Your task to perform on an android device: check android version Image 0: 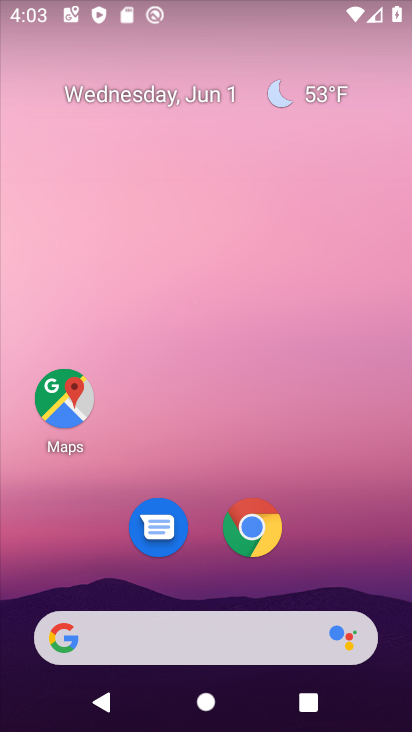
Step 0: drag from (289, 563) to (313, 115)
Your task to perform on an android device: check android version Image 1: 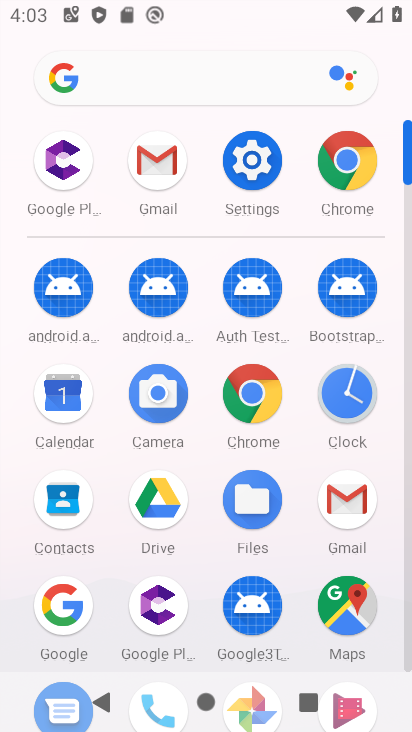
Step 1: click (253, 150)
Your task to perform on an android device: check android version Image 2: 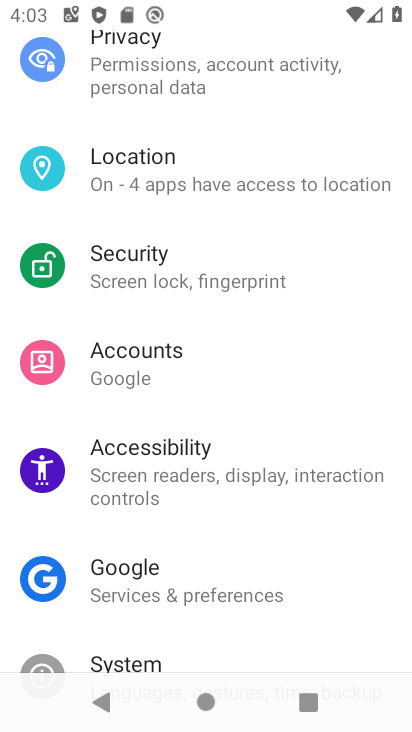
Step 2: drag from (192, 610) to (249, 124)
Your task to perform on an android device: check android version Image 3: 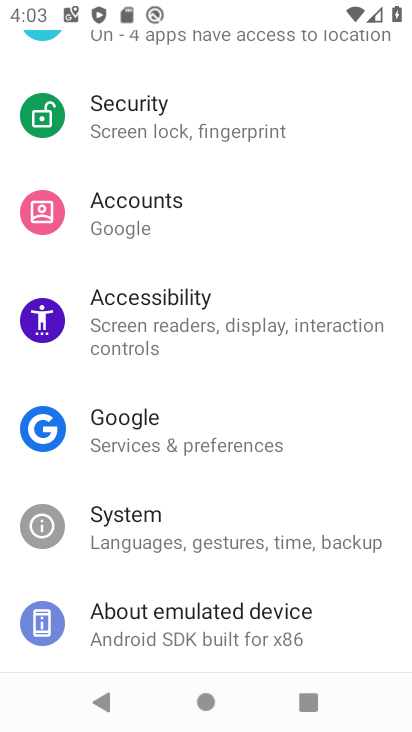
Step 3: click (133, 624)
Your task to perform on an android device: check android version Image 4: 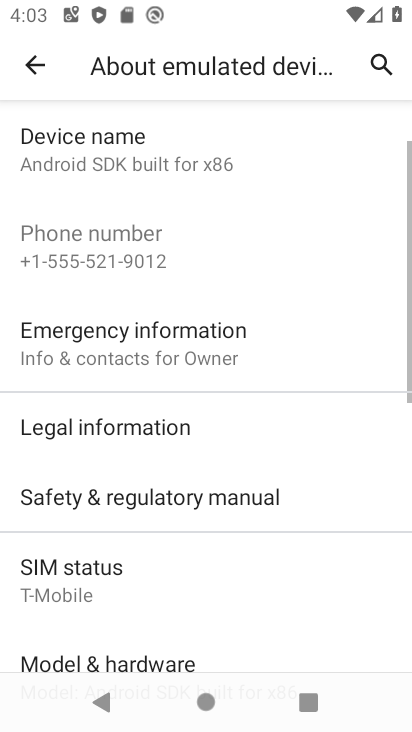
Step 4: drag from (155, 586) to (259, 99)
Your task to perform on an android device: check android version Image 5: 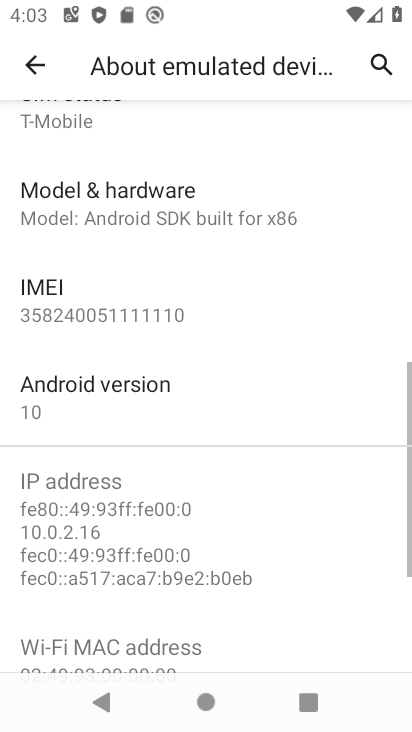
Step 5: click (42, 397)
Your task to perform on an android device: check android version Image 6: 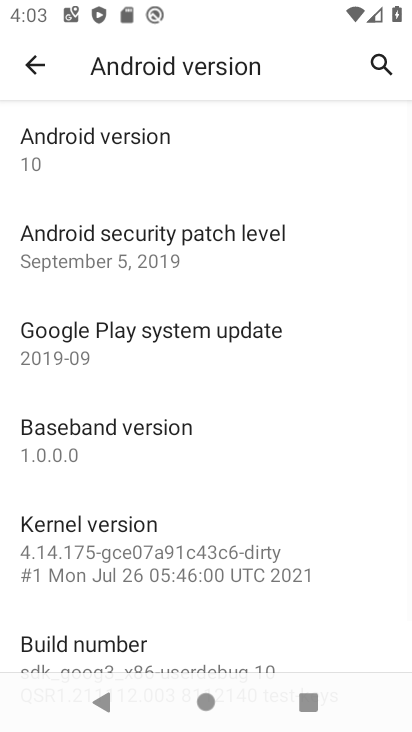
Step 6: task complete